Your task to perform on an android device: toggle sleep mode Image 0: 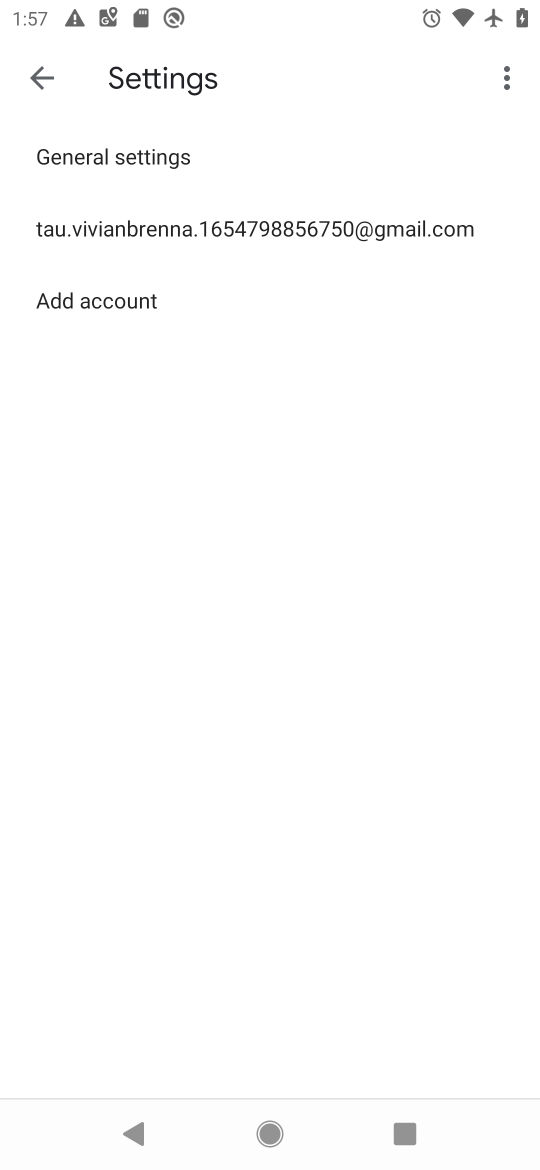
Step 0: task complete